Your task to perform on an android device: Open Chrome and go to the settings page Image 0: 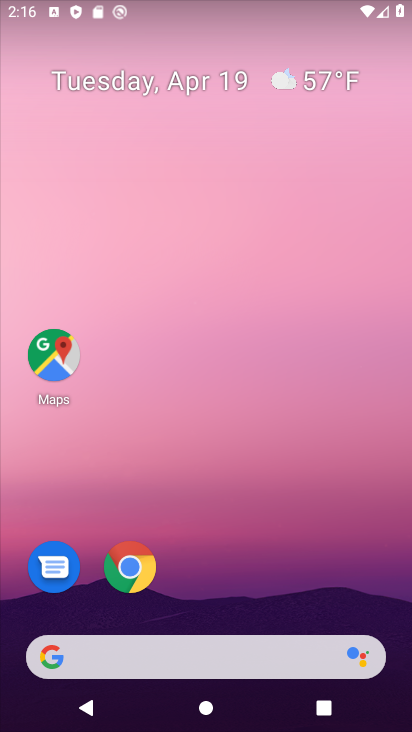
Step 0: click (130, 565)
Your task to perform on an android device: Open Chrome and go to the settings page Image 1: 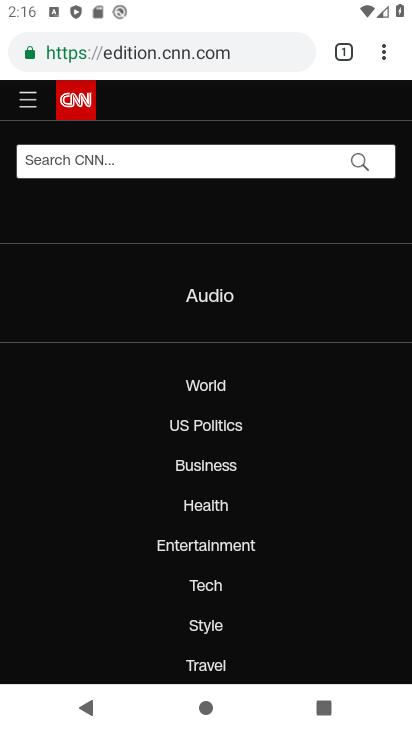
Step 1: click (381, 51)
Your task to perform on an android device: Open Chrome and go to the settings page Image 2: 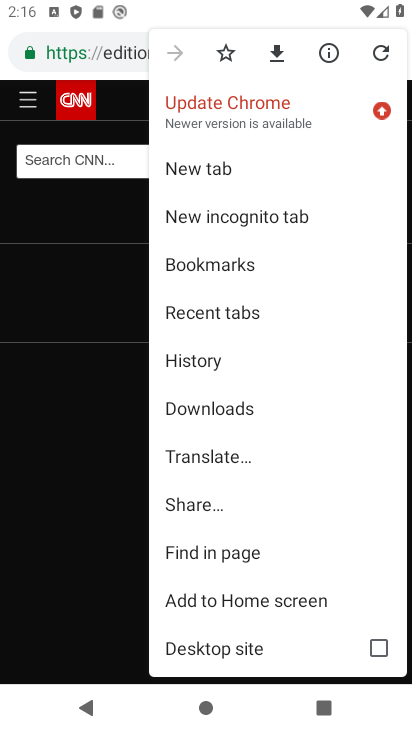
Step 2: drag from (341, 609) to (328, 317)
Your task to perform on an android device: Open Chrome and go to the settings page Image 3: 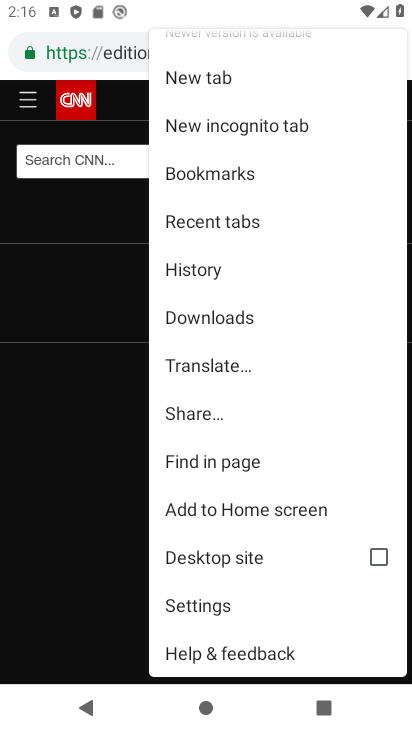
Step 3: click (195, 597)
Your task to perform on an android device: Open Chrome and go to the settings page Image 4: 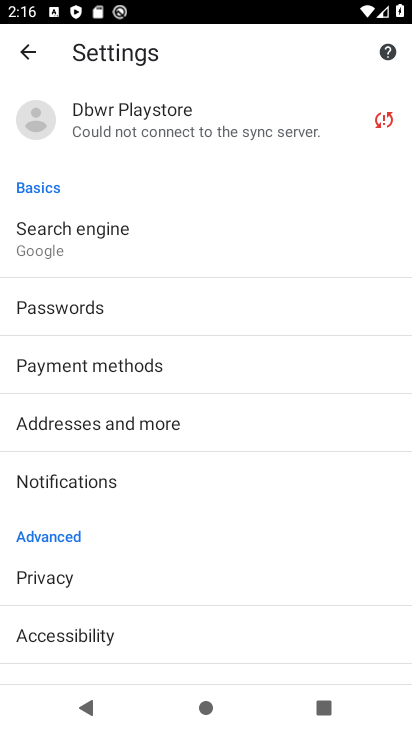
Step 4: task complete